Your task to perform on an android device: Is it going to rain today? Image 0: 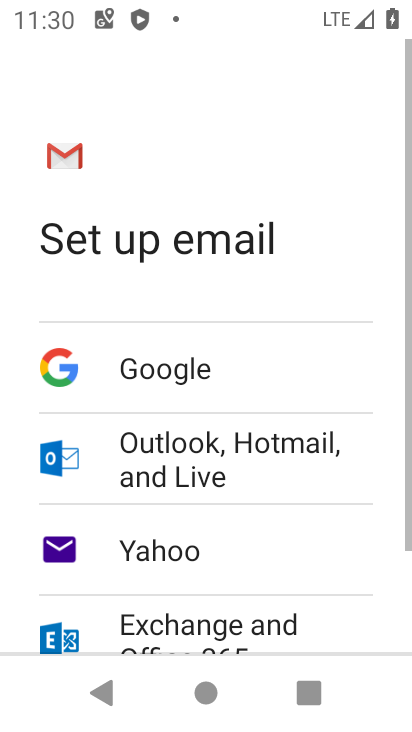
Step 0: press home button
Your task to perform on an android device: Is it going to rain today? Image 1: 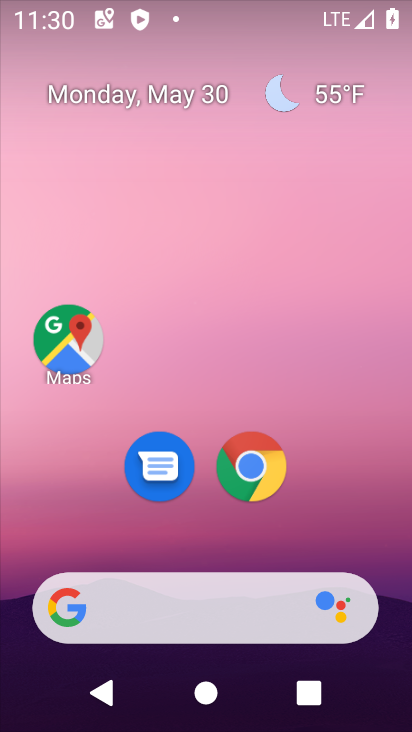
Step 1: click (334, 86)
Your task to perform on an android device: Is it going to rain today? Image 2: 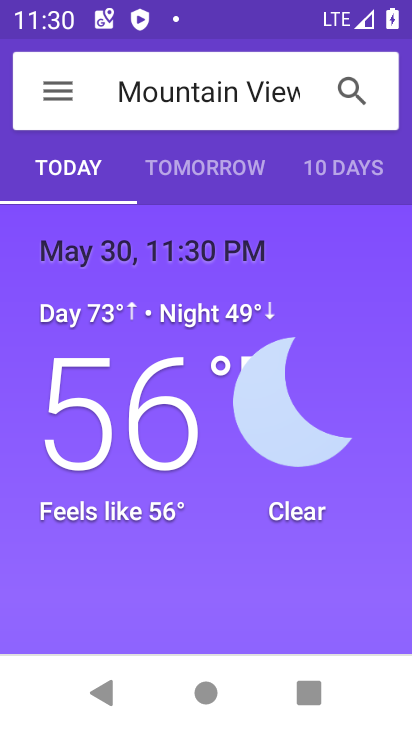
Step 2: task complete